Your task to perform on an android device: turn off notifications settings in the gmail app Image 0: 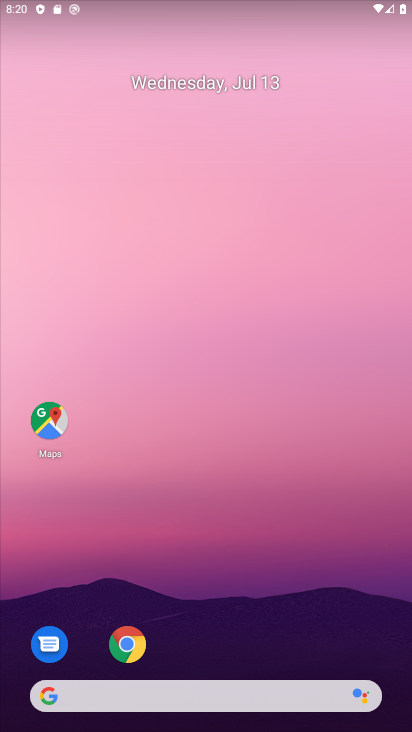
Step 0: drag from (249, 456) to (296, 15)
Your task to perform on an android device: turn off notifications settings in the gmail app Image 1: 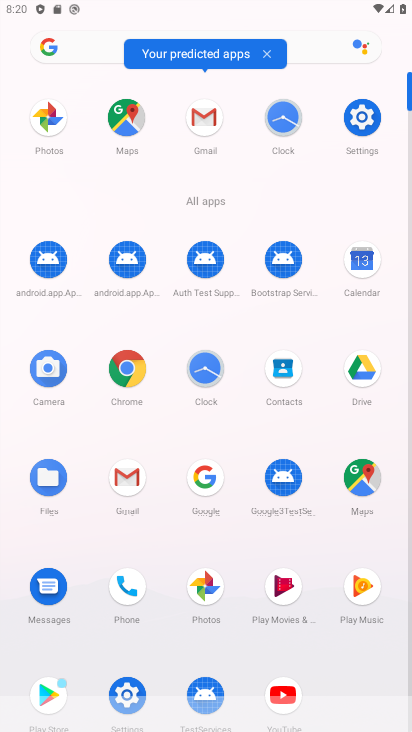
Step 1: click (203, 121)
Your task to perform on an android device: turn off notifications settings in the gmail app Image 2: 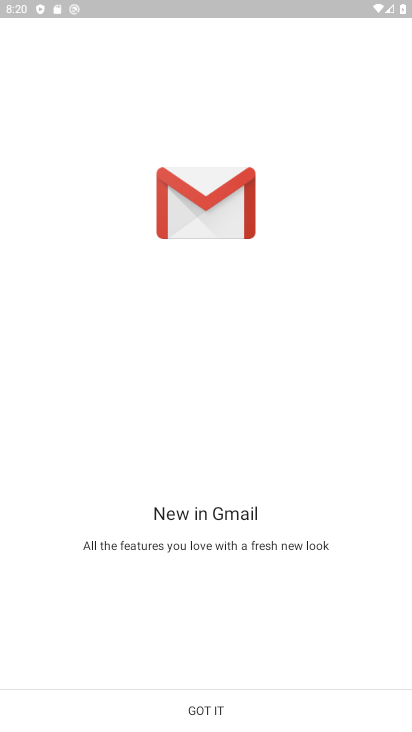
Step 2: click (167, 720)
Your task to perform on an android device: turn off notifications settings in the gmail app Image 3: 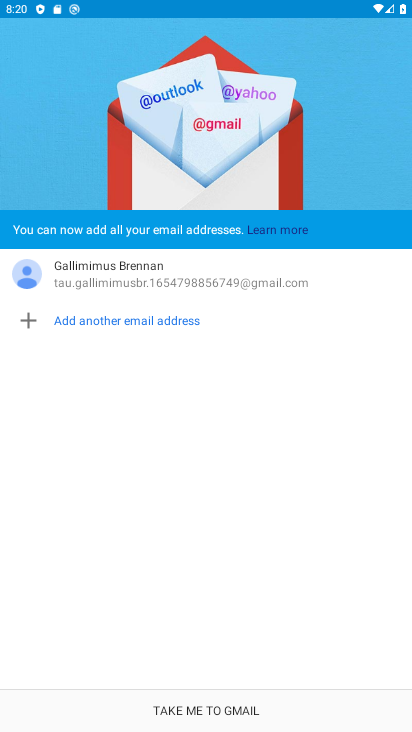
Step 3: click (167, 720)
Your task to perform on an android device: turn off notifications settings in the gmail app Image 4: 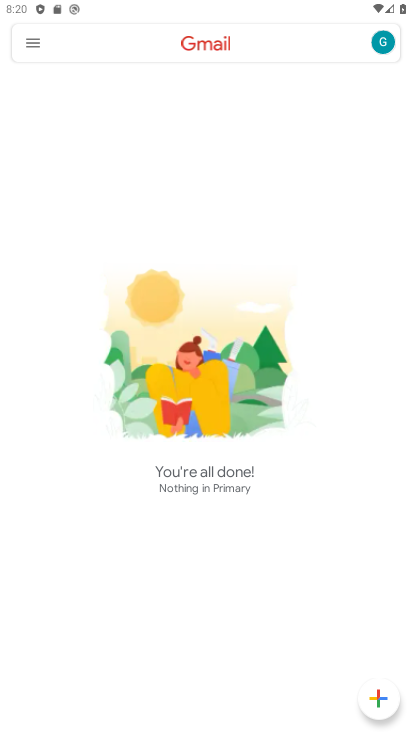
Step 4: click (30, 47)
Your task to perform on an android device: turn off notifications settings in the gmail app Image 5: 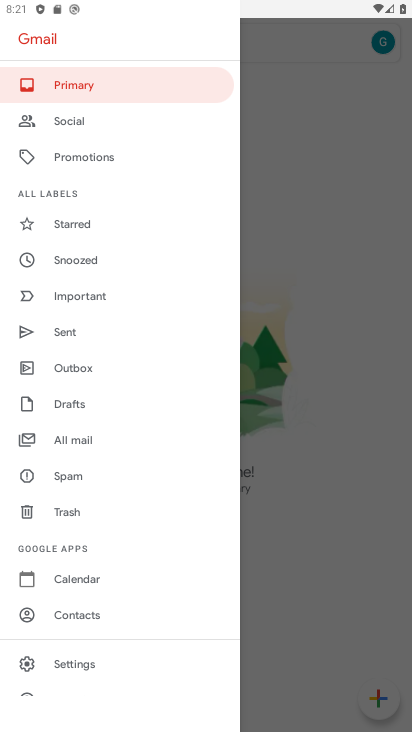
Step 5: click (71, 658)
Your task to perform on an android device: turn off notifications settings in the gmail app Image 6: 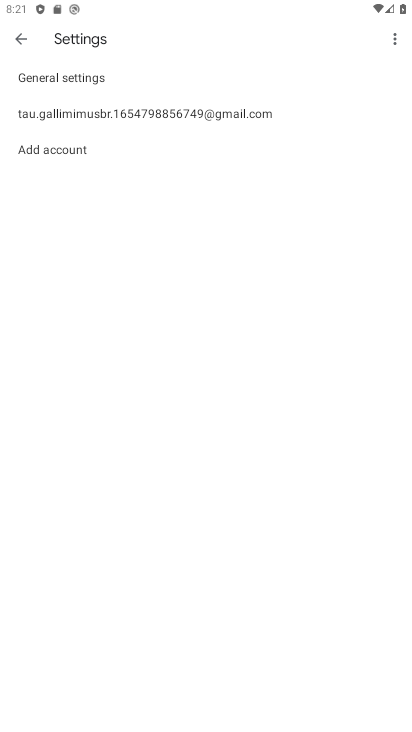
Step 6: click (202, 107)
Your task to perform on an android device: turn off notifications settings in the gmail app Image 7: 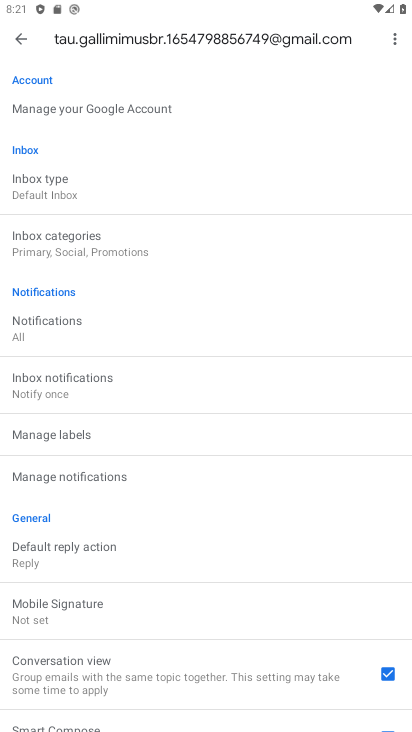
Step 7: click (140, 473)
Your task to perform on an android device: turn off notifications settings in the gmail app Image 8: 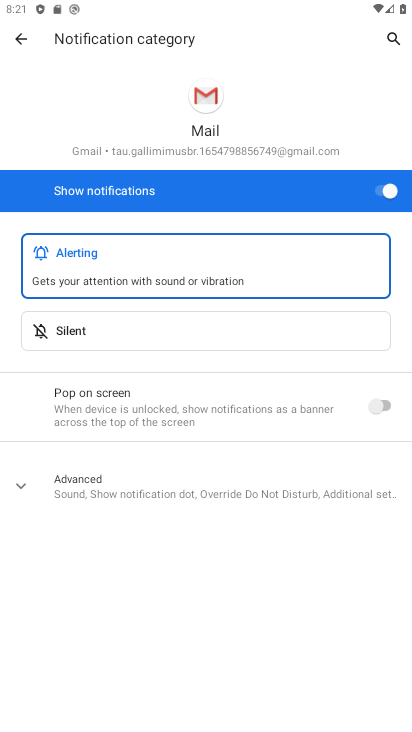
Step 8: click (394, 181)
Your task to perform on an android device: turn off notifications settings in the gmail app Image 9: 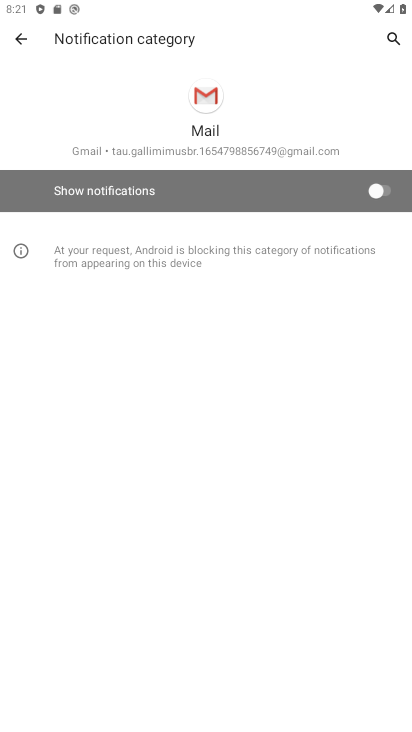
Step 9: task complete